Your task to perform on an android device: delete browsing data in the chrome app Image 0: 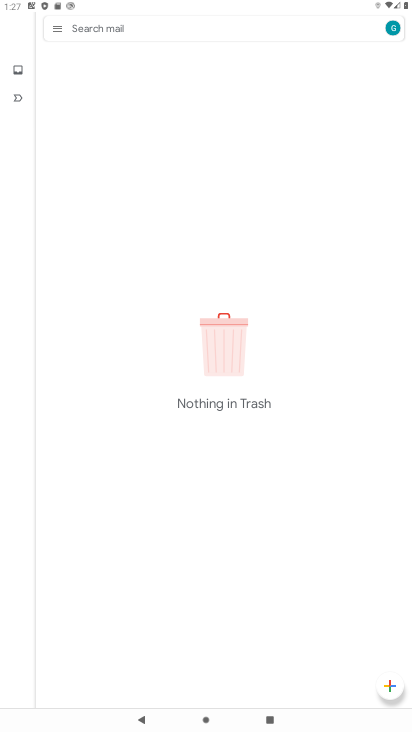
Step 0: press home button
Your task to perform on an android device: delete browsing data in the chrome app Image 1: 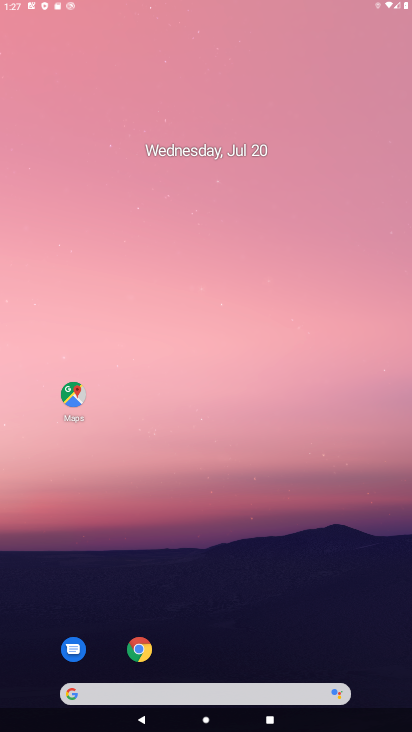
Step 1: drag from (205, 653) to (336, 119)
Your task to perform on an android device: delete browsing data in the chrome app Image 2: 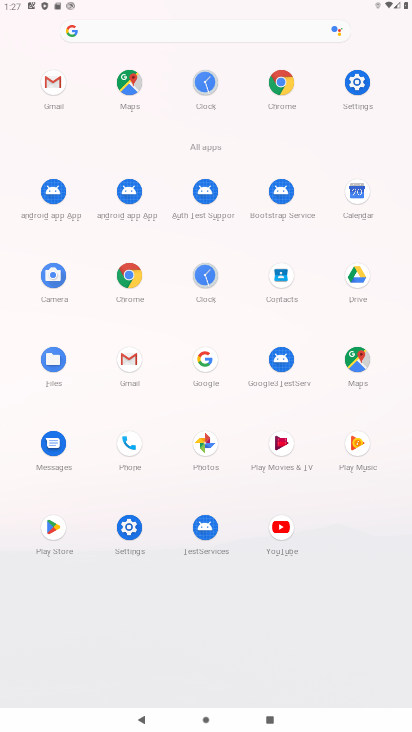
Step 2: click (283, 88)
Your task to perform on an android device: delete browsing data in the chrome app Image 3: 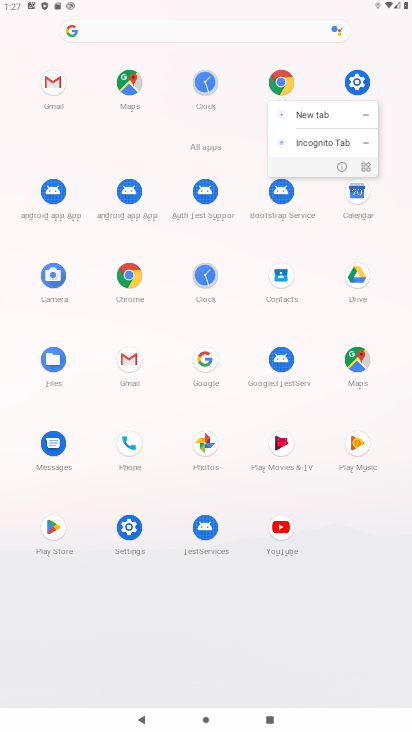
Step 3: click (283, 88)
Your task to perform on an android device: delete browsing data in the chrome app Image 4: 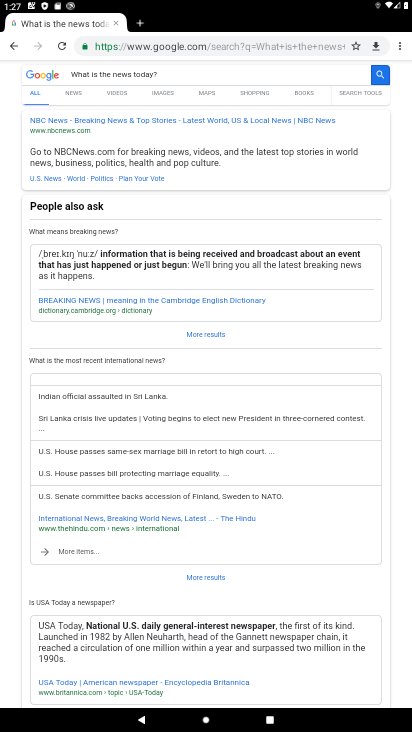
Step 4: drag from (392, 53) to (304, 277)
Your task to perform on an android device: delete browsing data in the chrome app Image 5: 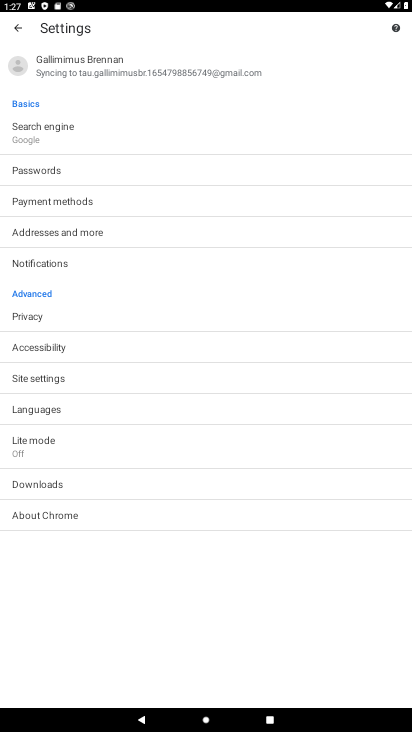
Step 5: click (71, 317)
Your task to perform on an android device: delete browsing data in the chrome app Image 6: 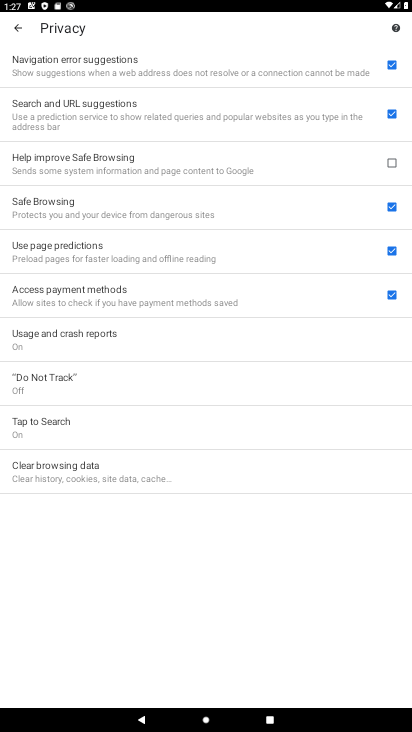
Step 6: click (86, 481)
Your task to perform on an android device: delete browsing data in the chrome app Image 7: 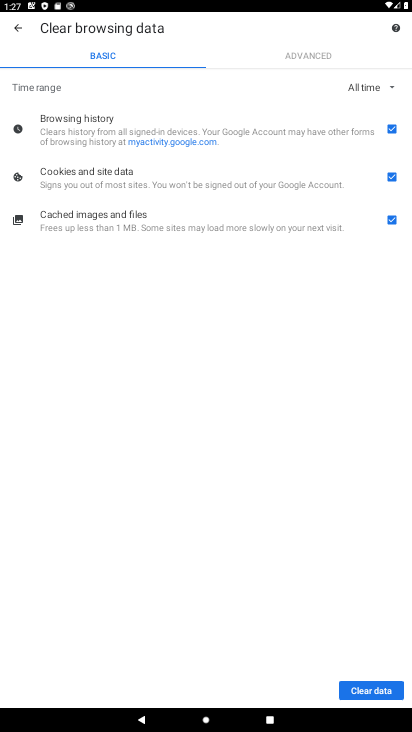
Step 7: click (348, 691)
Your task to perform on an android device: delete browsing data in the chrome app Image 8: 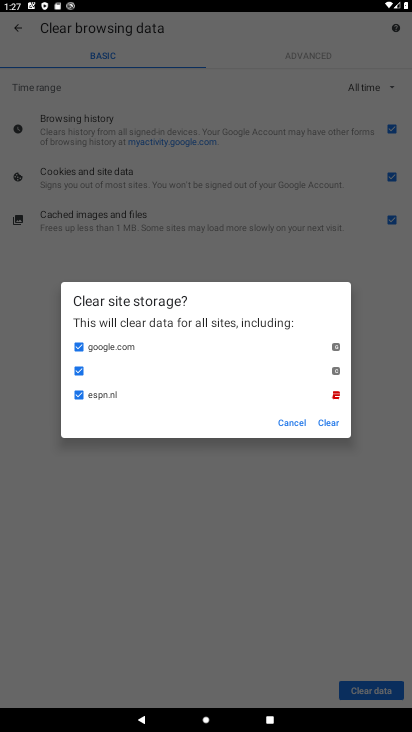
Step 8: click (327, 421)
Your task to perform on an android device: delete browsing data in the chrome app Image 9: 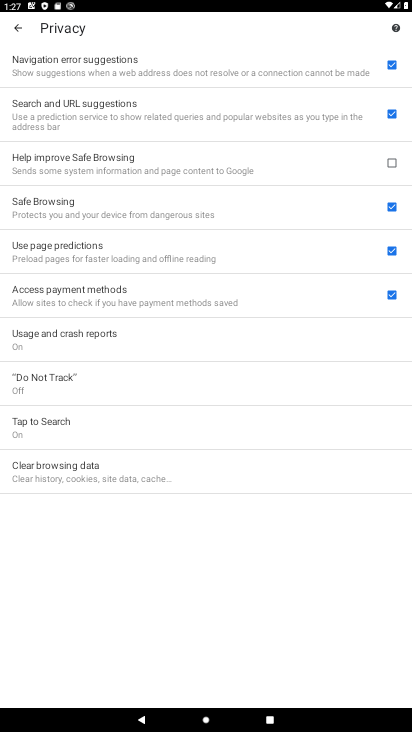
Step 9: task complete